Your task to perform on an android device: turn on bluetooth scan Image 0: 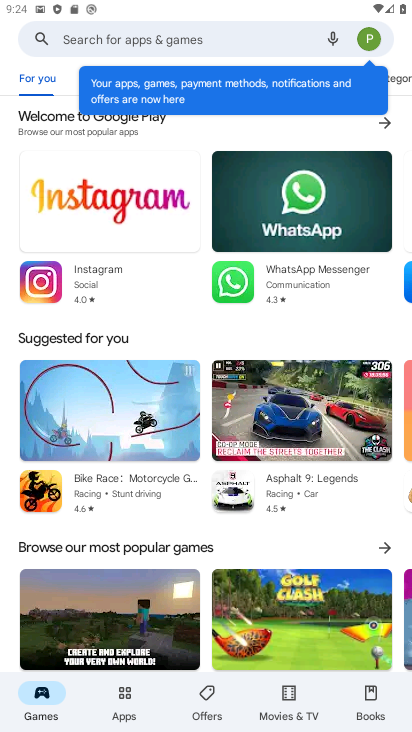
Step 0: press home button
Your task to perform on an android device: turn on bluetooth scan Image 1: 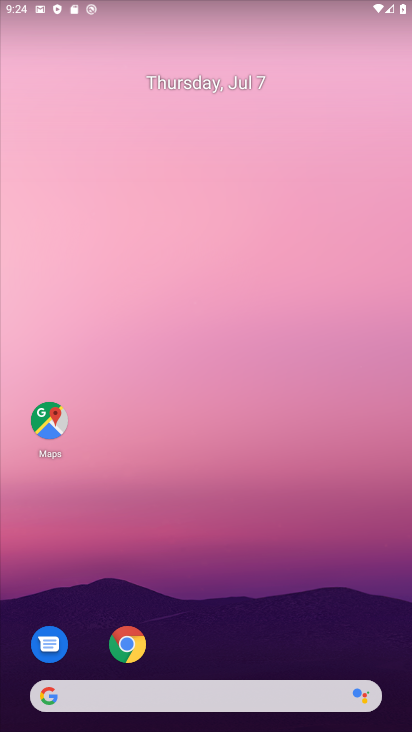
Step 1: drag from (167, 531) to (220, 13)
Your task to perform on an android device: turn on bluetooth scan Image 2: 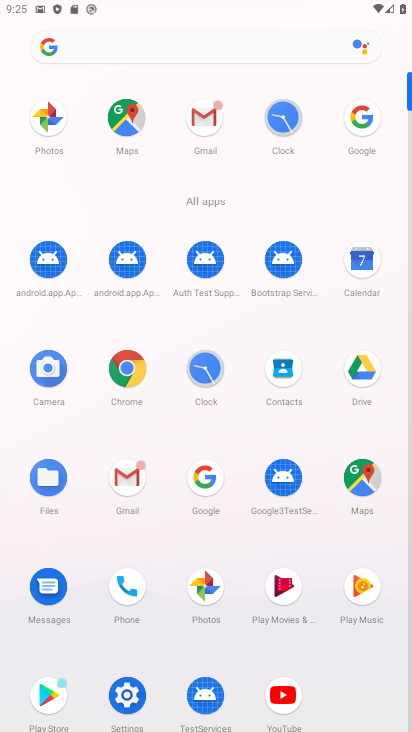
Step 2: click (119, 694)
Your task to perform on an android device: turn on bluetooth scan Image 3: 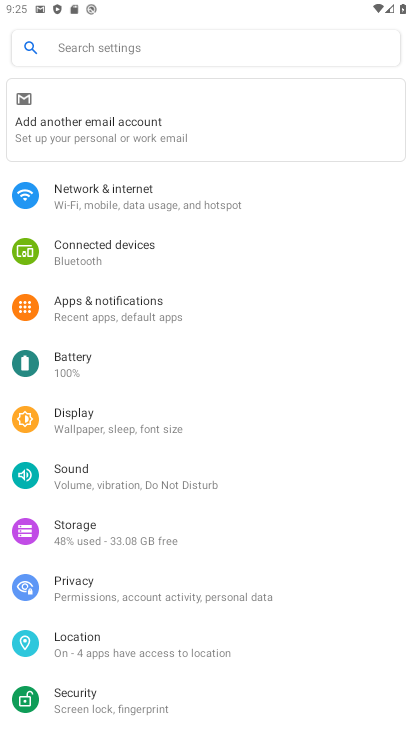
Step 3: click (86, 640)
Your task to perform on an android device: turn on bluetooth scan Image 4: 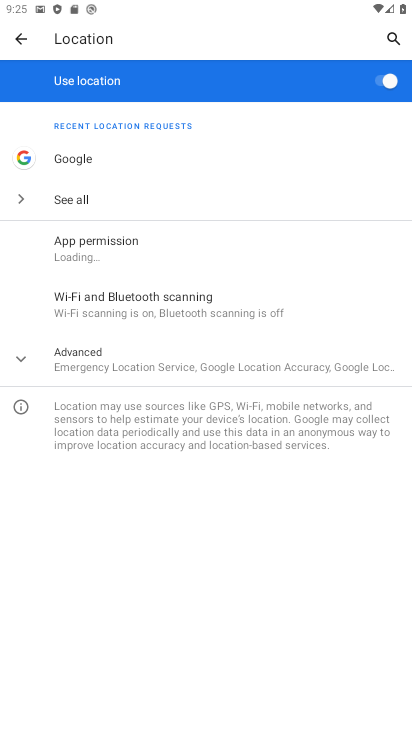
Step 4: click (190, 364)
Your task to perform on an android device: turn on bluetooth scan Image 5: 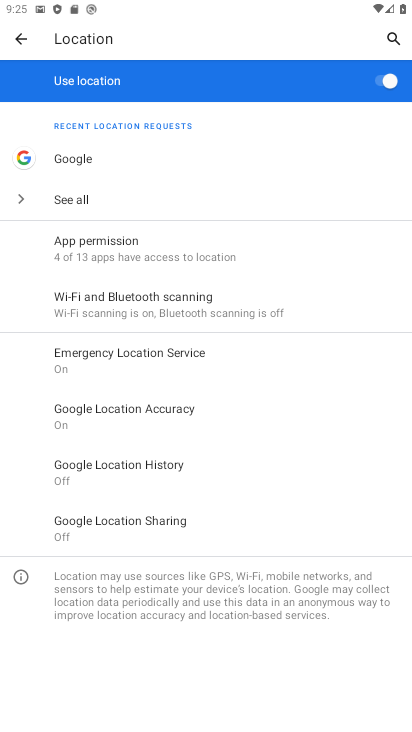
Step 5: click (145, 309)
Your task to perform on an android device: turn on bluetooth scan Image 6: 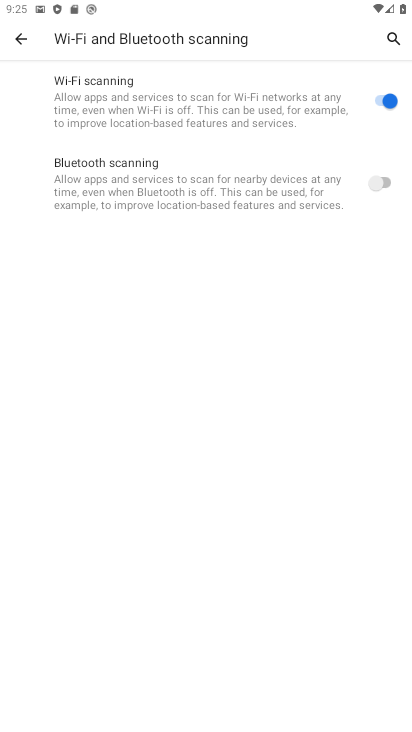
Step 6: click (384, 179)
Your task to perform on an android device: turn on bluetooth scan Image 7: 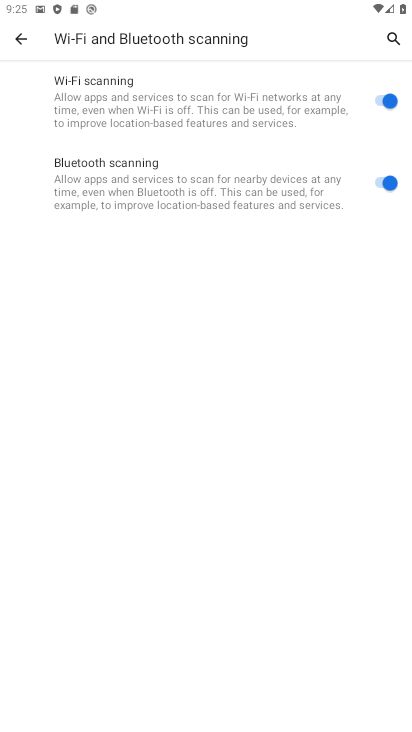
Step 7: task complete